Your task to perform on an android device: Empty the shopping cart on newegg. Search for logitech g903 on newegg, select the first entry, and add it to the cart. Image 0: 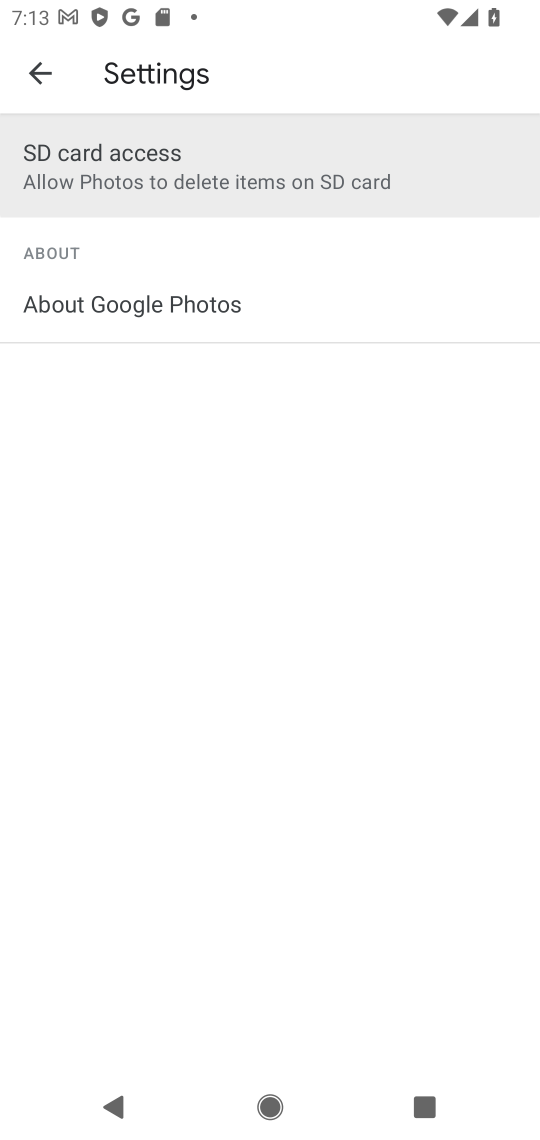
Step 0: press home button
Your task to perform on an android device: Empty the shopping cart on newegg. Search for logitech g903 on newegg, select the first entry, and add it to the cart. Image 1: 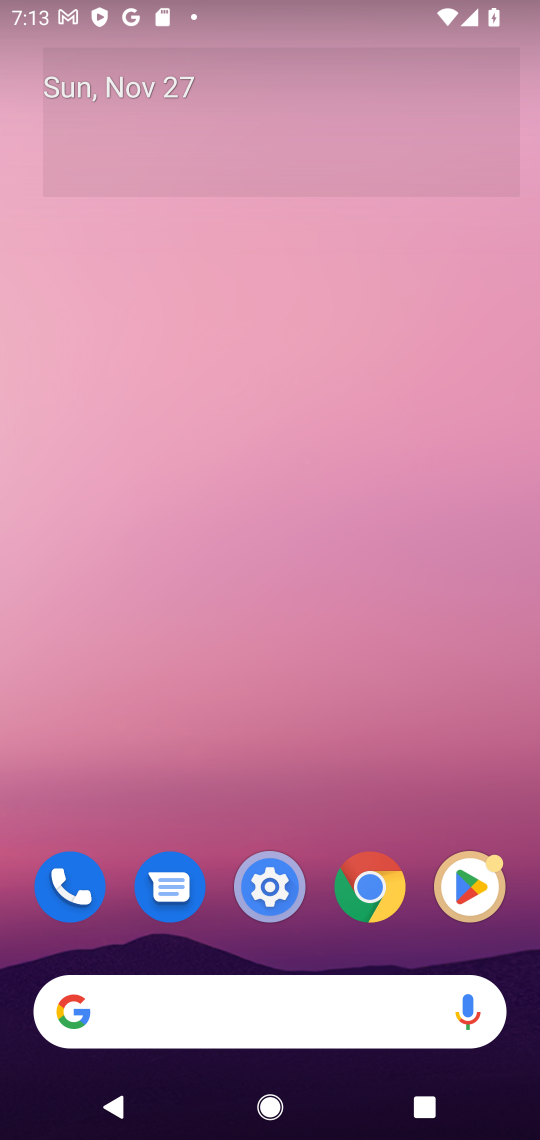
Step 1: click (311, 992)
Your task to perform on an android device: Empty the shopping cart on newegg. Search for logitech g903 on newegg, select the first entry, and add it to the cart. Image 2: 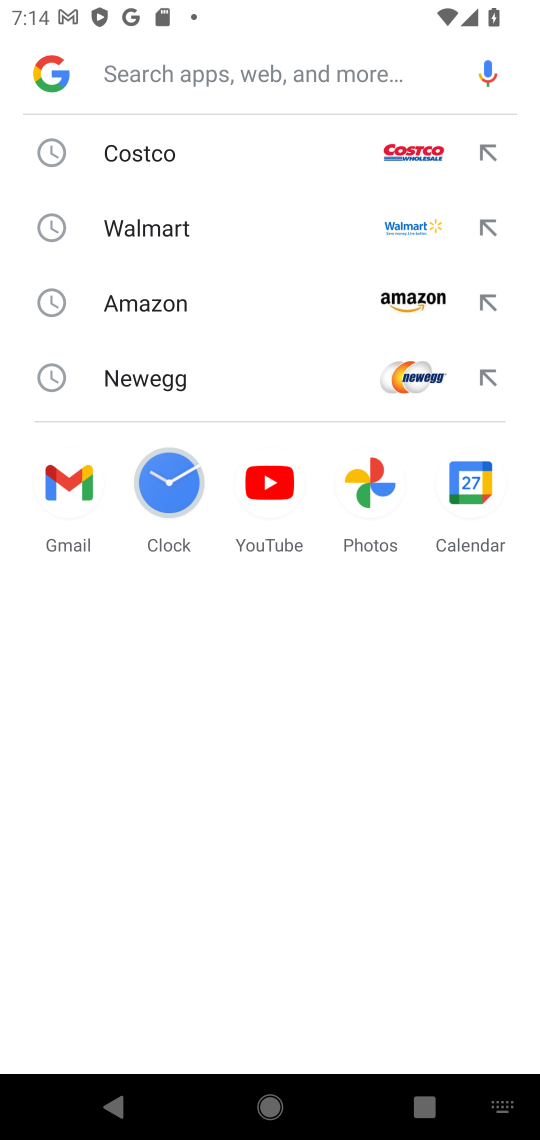
Step 2: click (270, 370)
Your task to perform on an android device: Empty the shopping cart on newegg. Search for logitech g903 on newegg, select the first entry, and add it to the cart. Image 3: 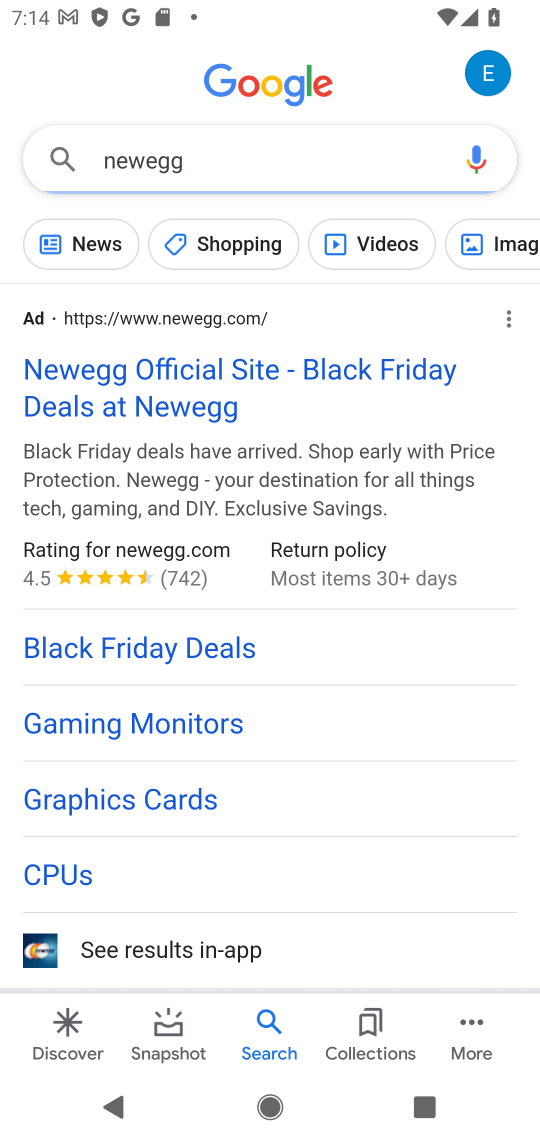
Step 3: click (270, 370)
Your task to perform on an android device: Empty the shopping cart on newegg. Search for logitech g903 on newegg, select the first entry, and add it to the cart. Image 4: 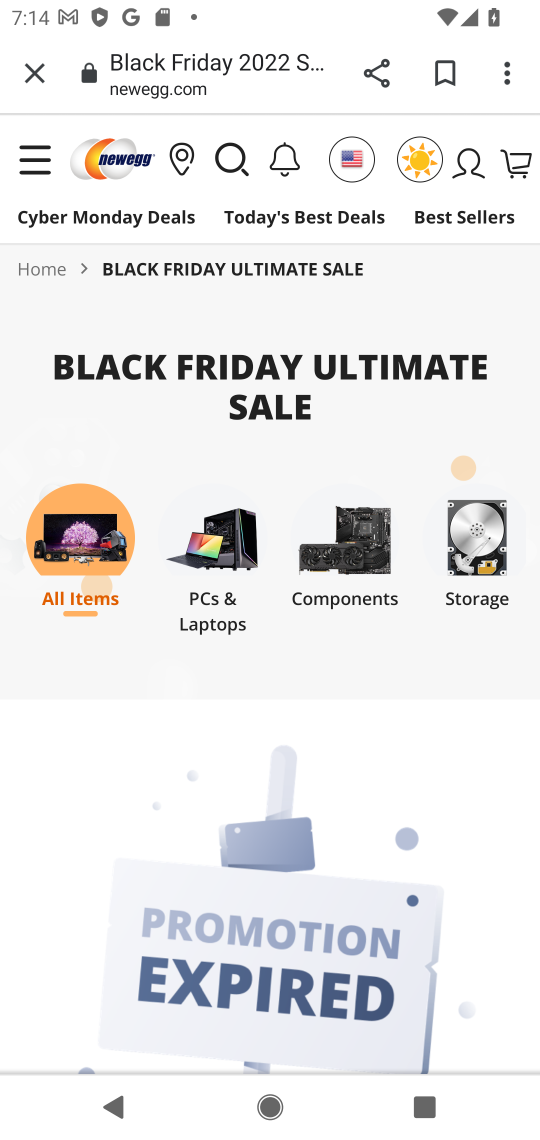
Step 4: click (242, 173)
Your task to perform on an android device: Empty the shopping cart on newegg. Search for logitech g903 on newegg, select the first entry, and add it to the cart. Image 5: 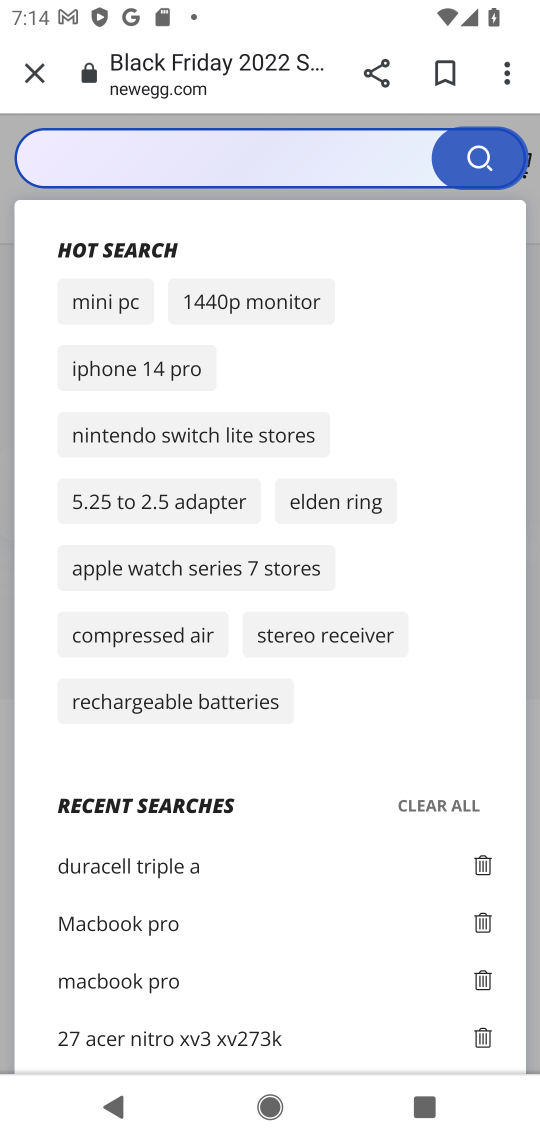
Step 5: type "logitech g903"
Your task to perform on an android device: Empty the shopping cart on newegg. Search for logitech g903 on newegg, select the first entry, and add it to the cart. Image 6: 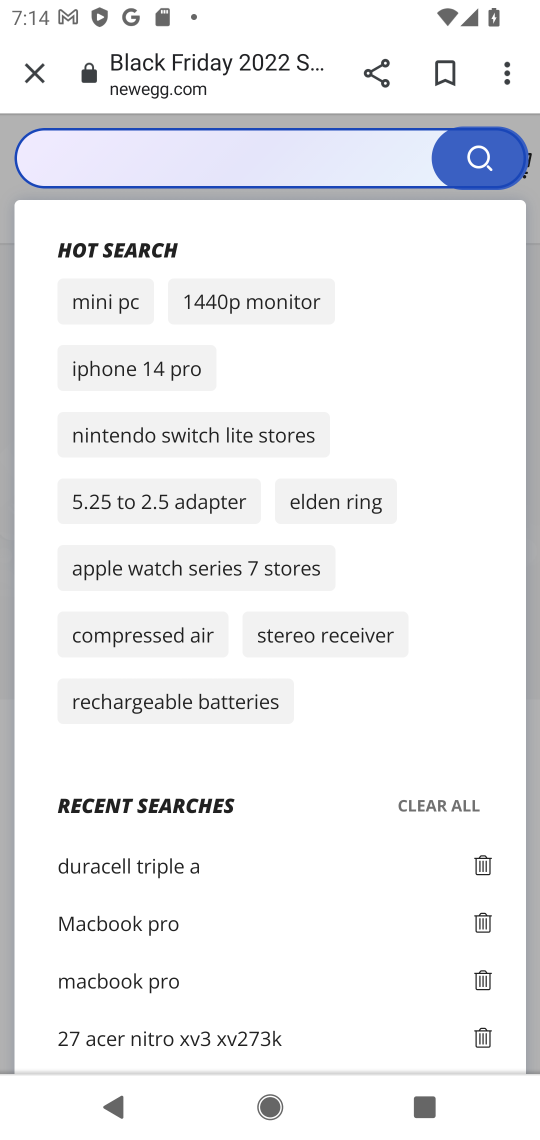
Step 6: click (253, 175)
Your task to perform on an android device: Empty the shopping cart on newegg. Search for logitech g903 on newegg, select the first entry, and add it to the cart. Image 7: 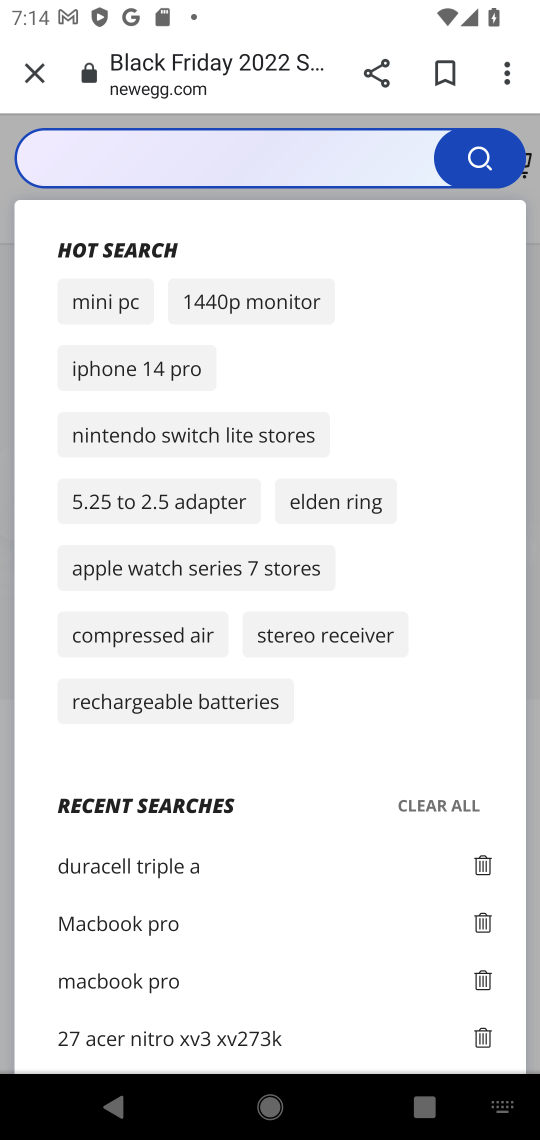
Step 7: type "logitech g903"
Your task to perform on an android device: Empty the shopping cart on newegg. Search for logitech g903 on newegg, select the first entry, and add it to the cart. Image 8: 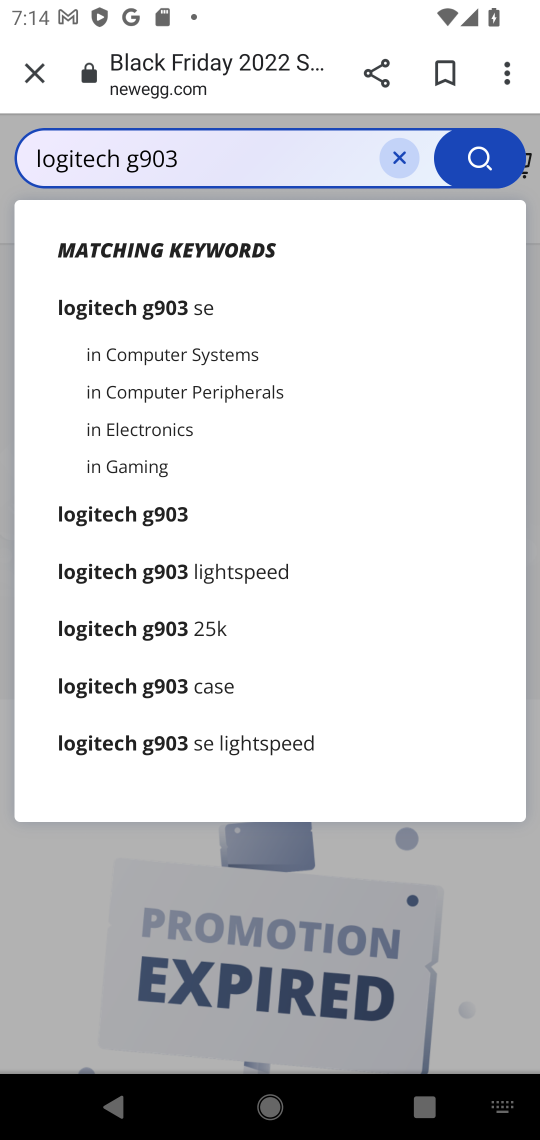
Step 8: click (487, 168)
Your task to perform on an android device: Empty the shopping cart on newegg. Search for logitech g903 on newegg, select the first entry, and add it to the cart. Image 9: 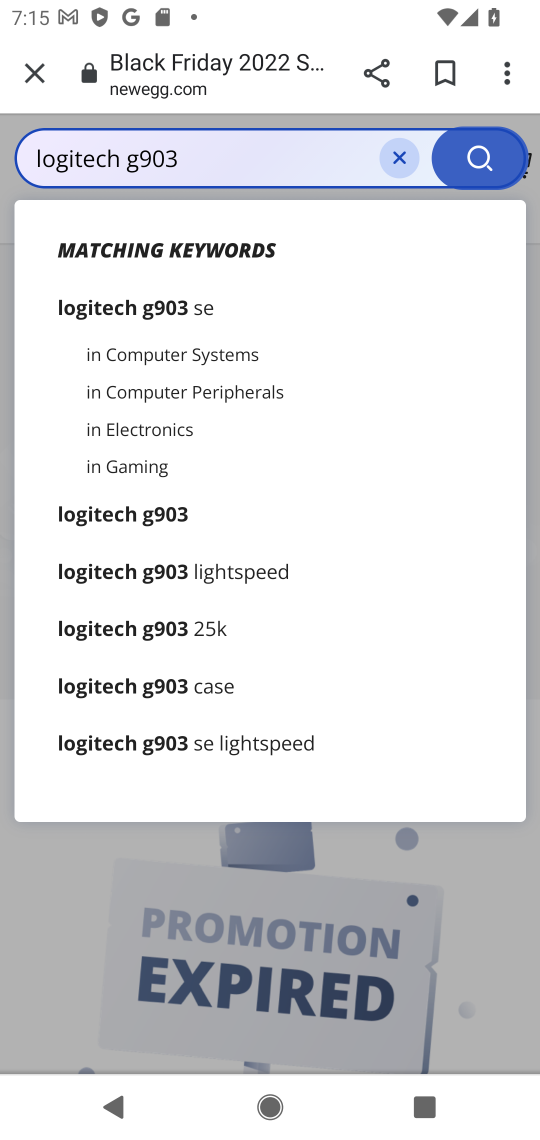
Step 9: click (458, 165)
Your task to perform on an android device: Empty the shopping cart on newegg. Search for logitech g903 on newegg, select the first entry, and add it to the cart. Image 10: 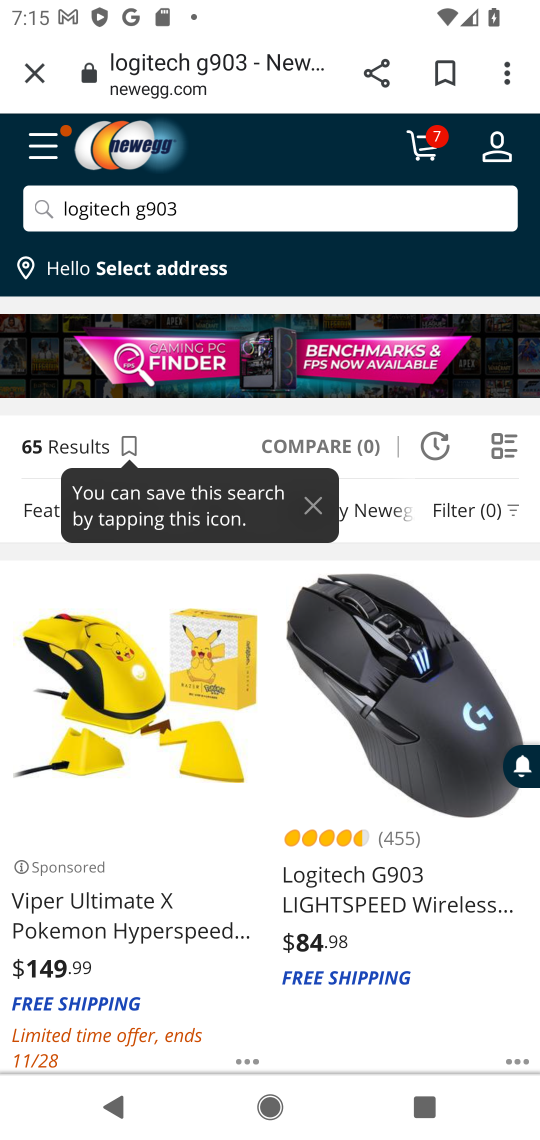
Step 10: click (105, 740)
Your task to perform on an android device: Empty the shopping cart on newegg. Search for logitech g903 on newegg, select the first entry, and add it to the cart. Image 11: 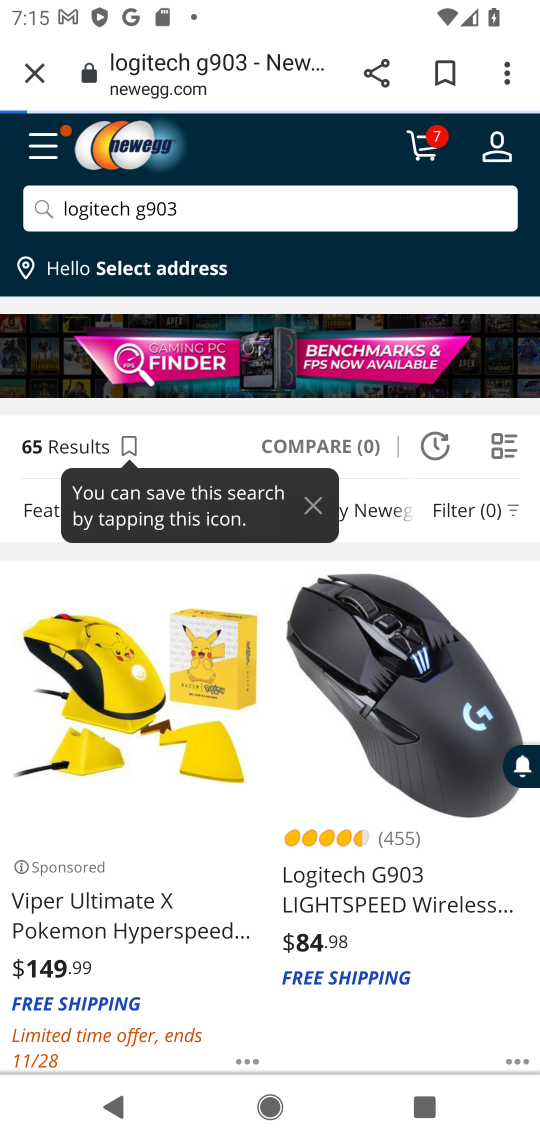
Step 11: click (143, 898)
Your task to perform on an android device: Empty the shopping cart on newegg. Search for logitech g903 on newegg, select the first entry, and add it to the cart. Image 12: 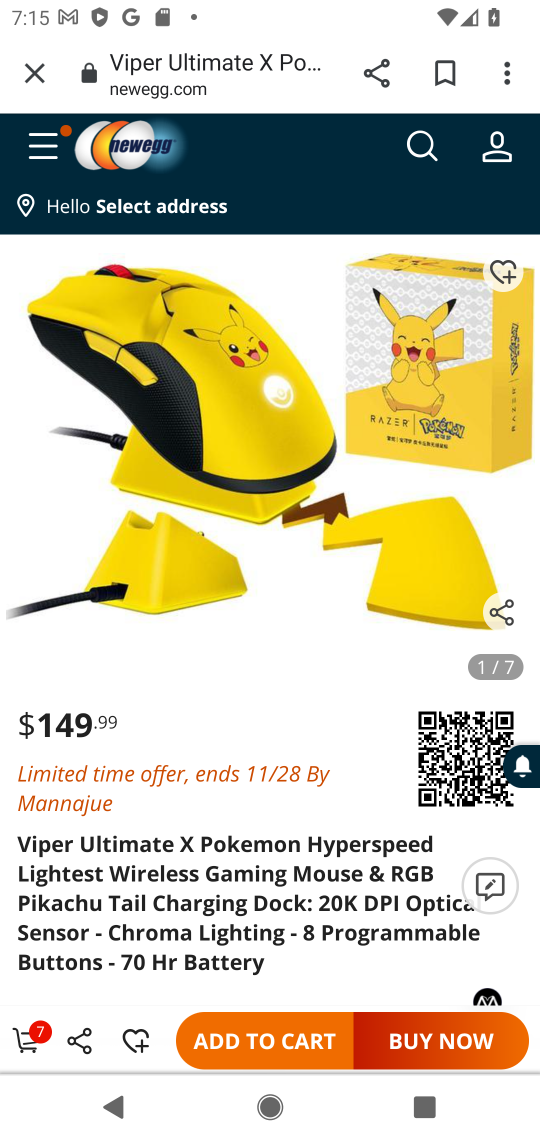
Step 12: click (208, 1033)
Your task to perform on an android device: Empty the shopping cart on newegg. Search for logitech g903 on newegg, select the first entry, and add it to the cart. Image 13: 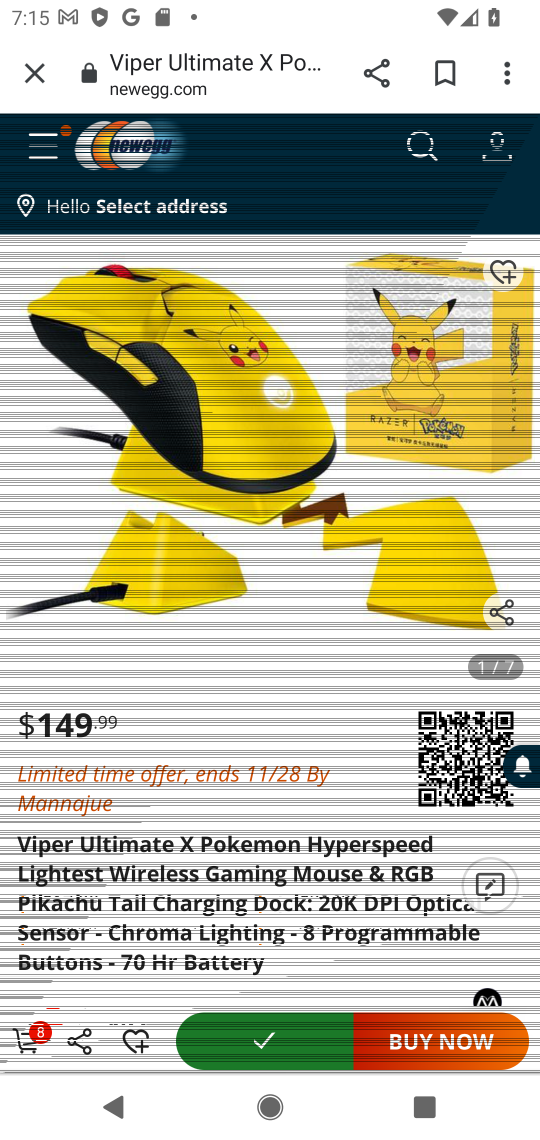
Step 13: task complete